Your task to perform on an android device: Open wifi settings Image 0: 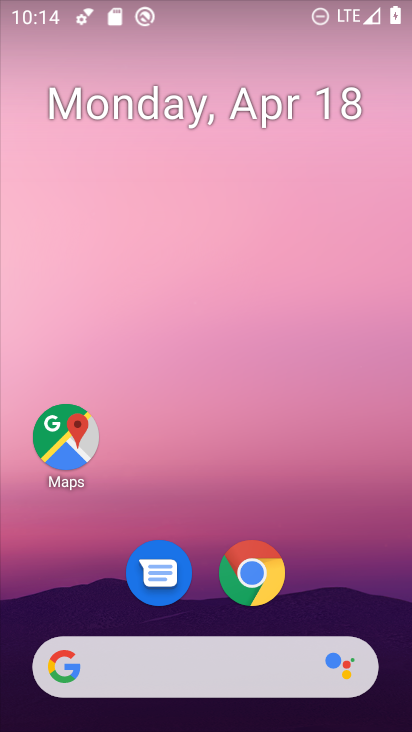
Step 0: drag from (331, 410) to (233, 25)
Your task to perform on an android device: Open wifi settings Image 1: 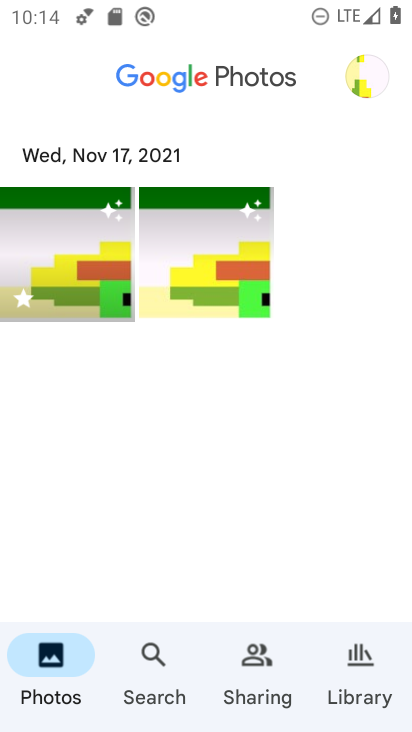
Step 1: press home button
Your task to perform on an android device: Open wifi settings Image 2: 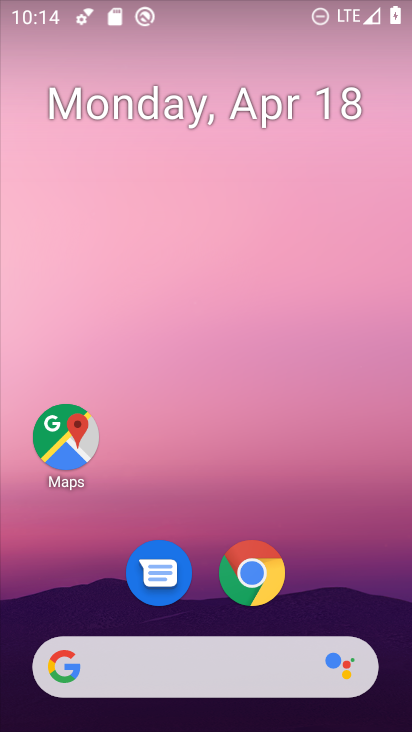
Step 2: drag from (364, 607) to (242, 34)
Your task to perform on an android device: Open wifi settings Image 3: 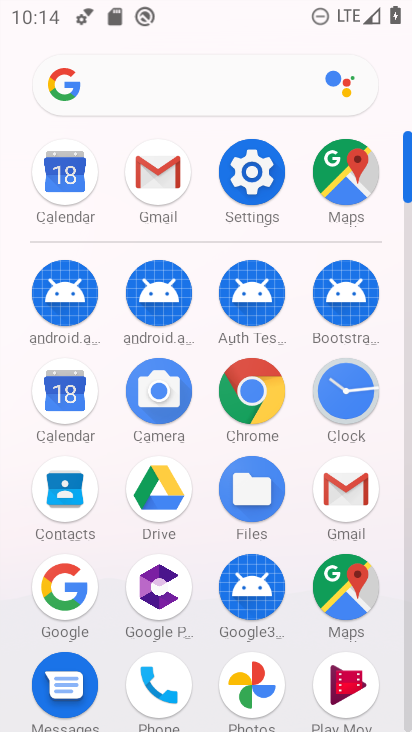
Step 3: click (250, 169)
Your task to perform on an android device: Open wifi settings Image 4: 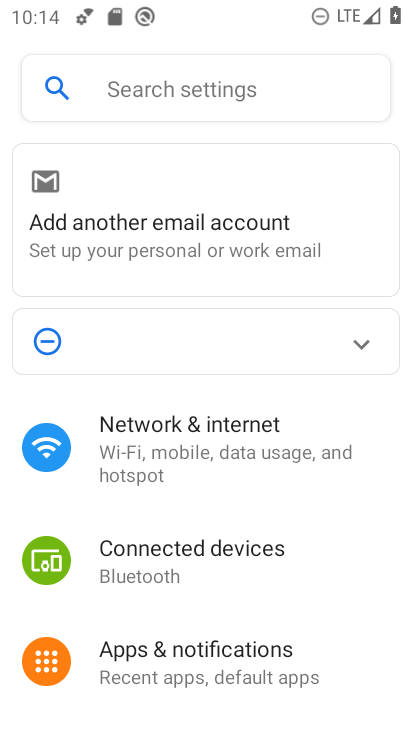
Step 4: click (197, 439)
Your task to perform on an android device: Open wifi settings Image 5: 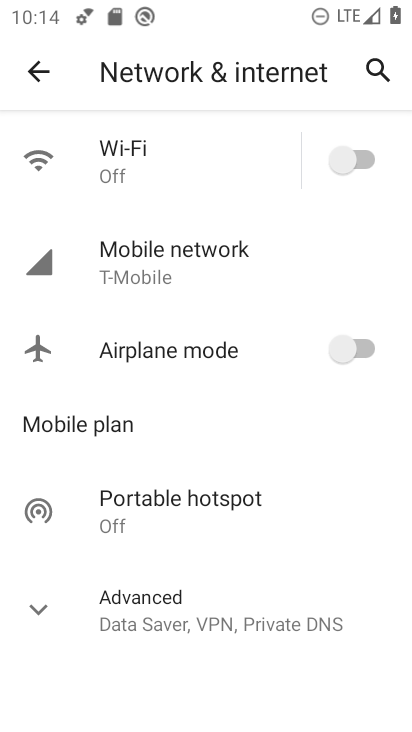
Step 5: click (162, 197)
Your task to perform on an android device: Open wifi settings Image 6: 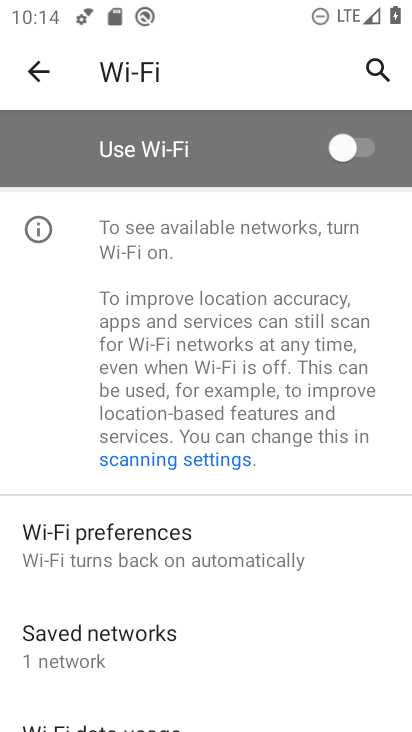
Step 6: task complete